Your task to perform on an android device: open chrome and create a bookmark for the current page Image 0: 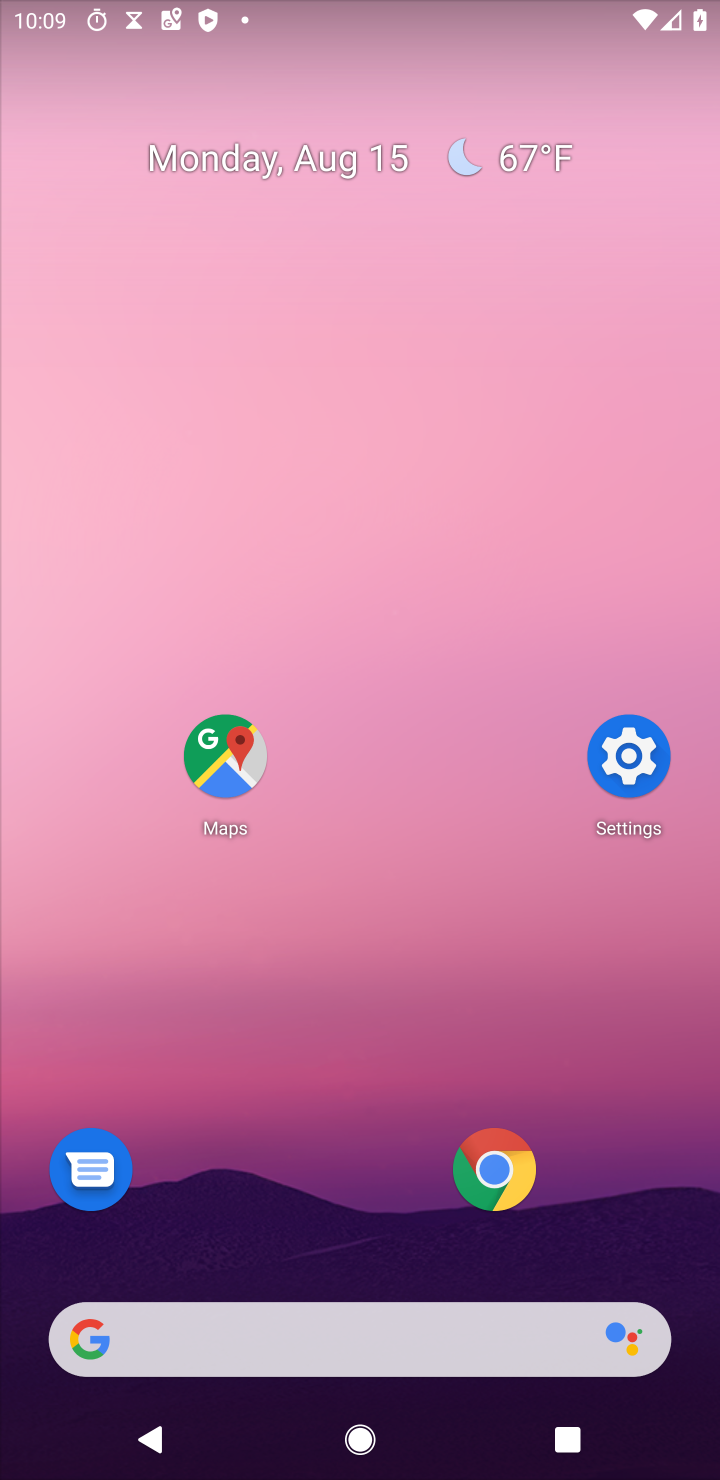
Step 0: click (488, 1170)
Your task to perform on an android device: open chrome and create a bookmark for the current page Image 1: 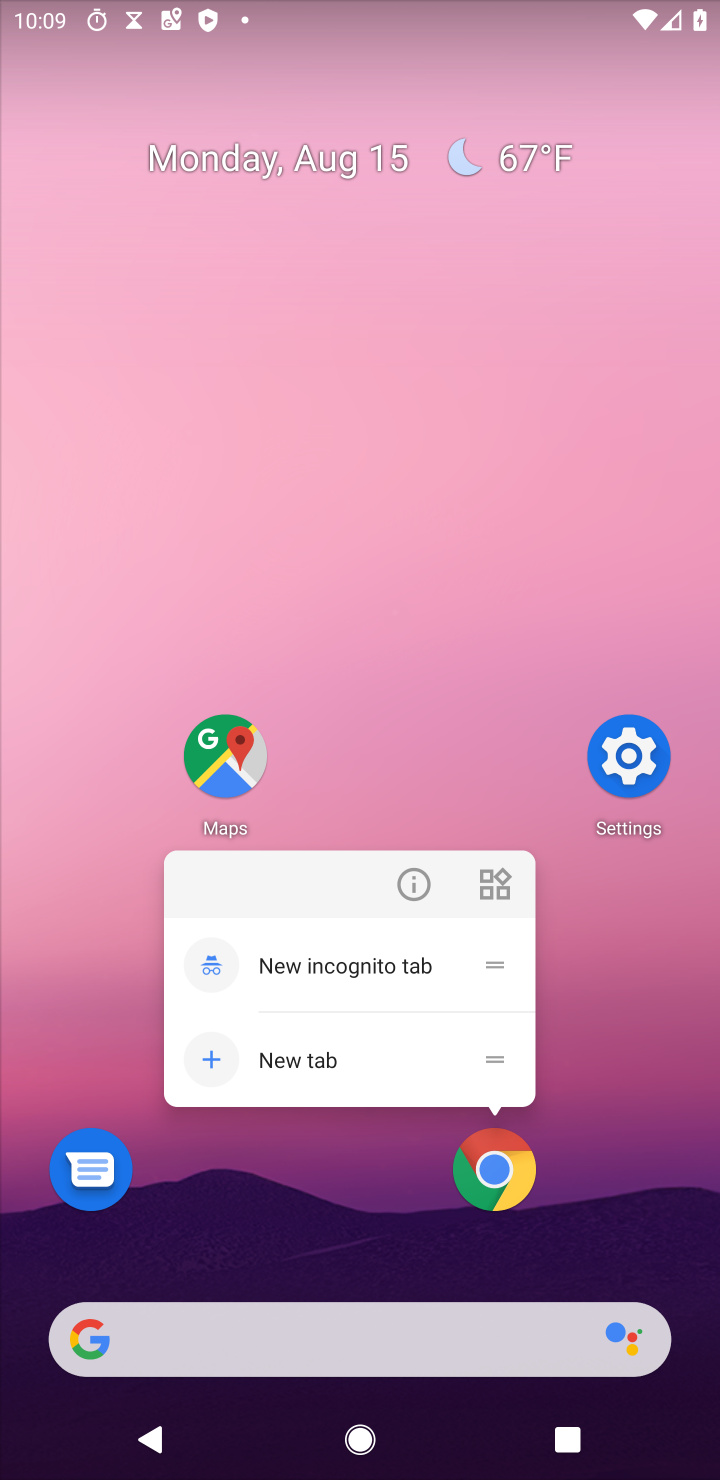
Step 1: click (488, 1170)
Your task to perform on an android device: open chrome and create a bookmark for the current page Image 2: 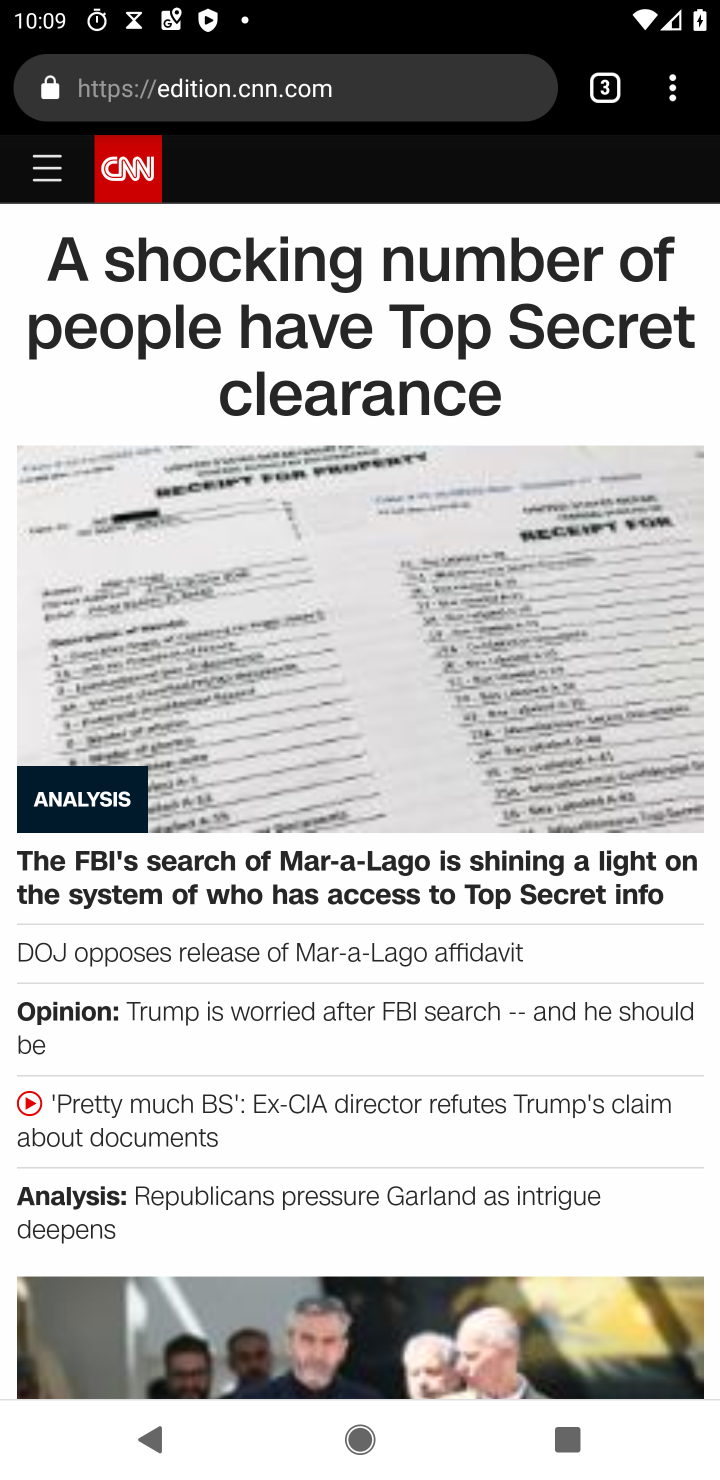
Step 2: click (675, 113)
Your task to perform on an android device: open chrome and create a bookmark for the current page Image 3: 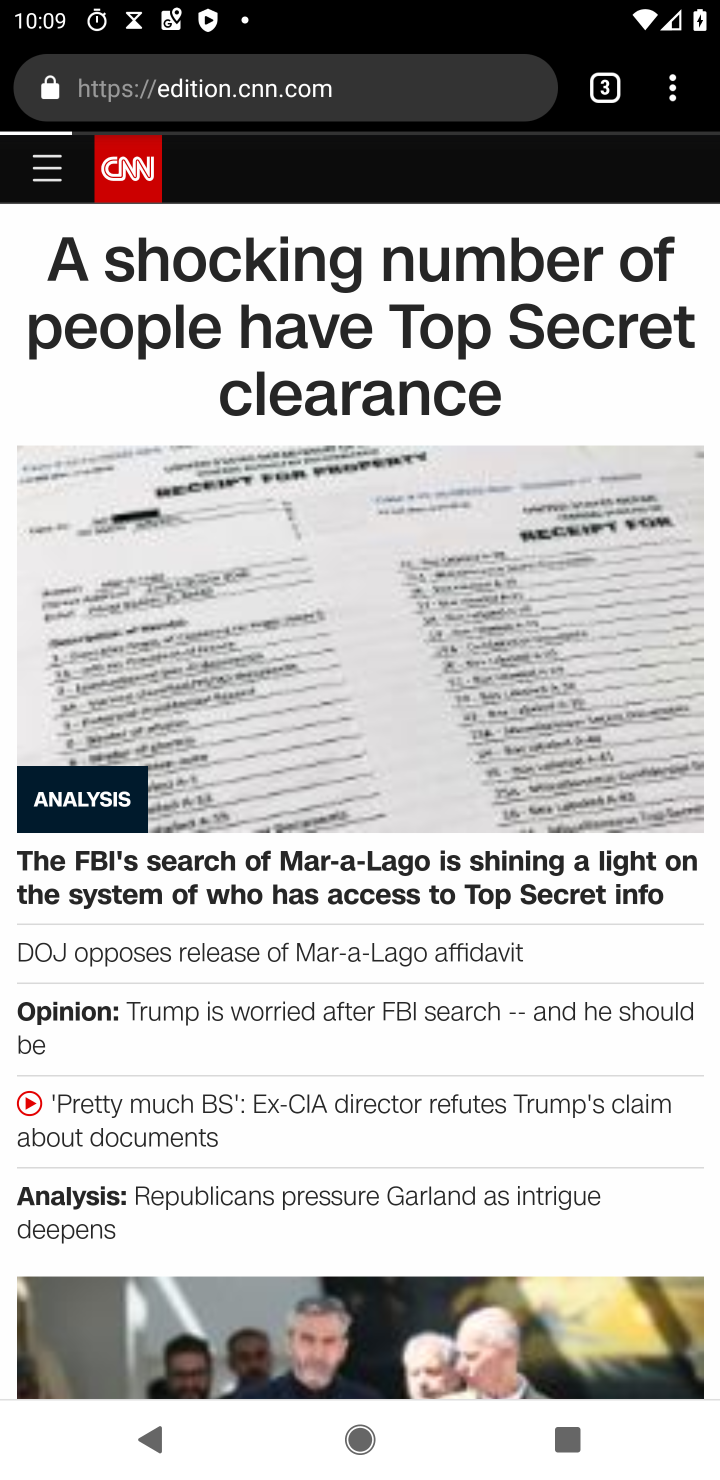
Step 3: click (671, 108)
Your task to perform on an android device: open chrome and create a bookmark for the current page Image 4: 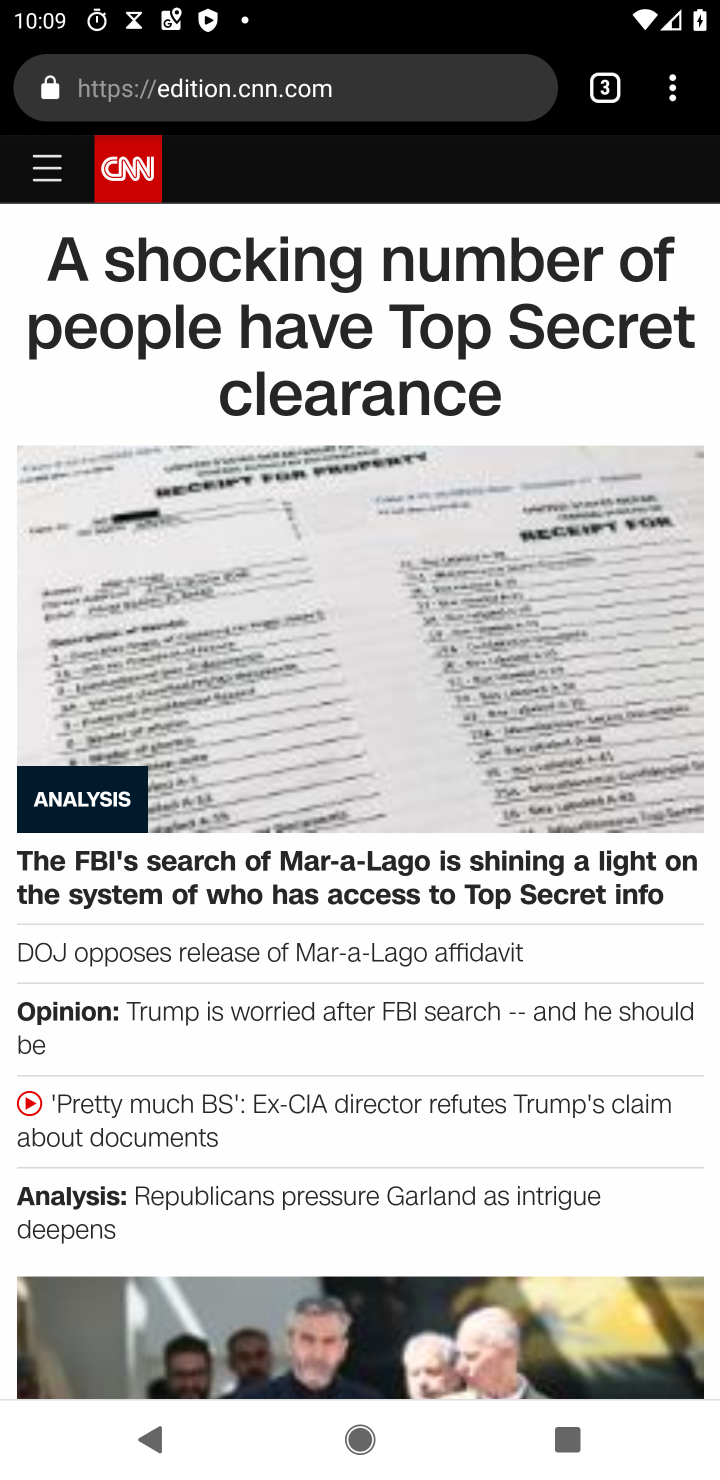
Step 4: click (653, 108)
Your task to perform on an android device: open chrome and create a bookmark for the current page Image 5: 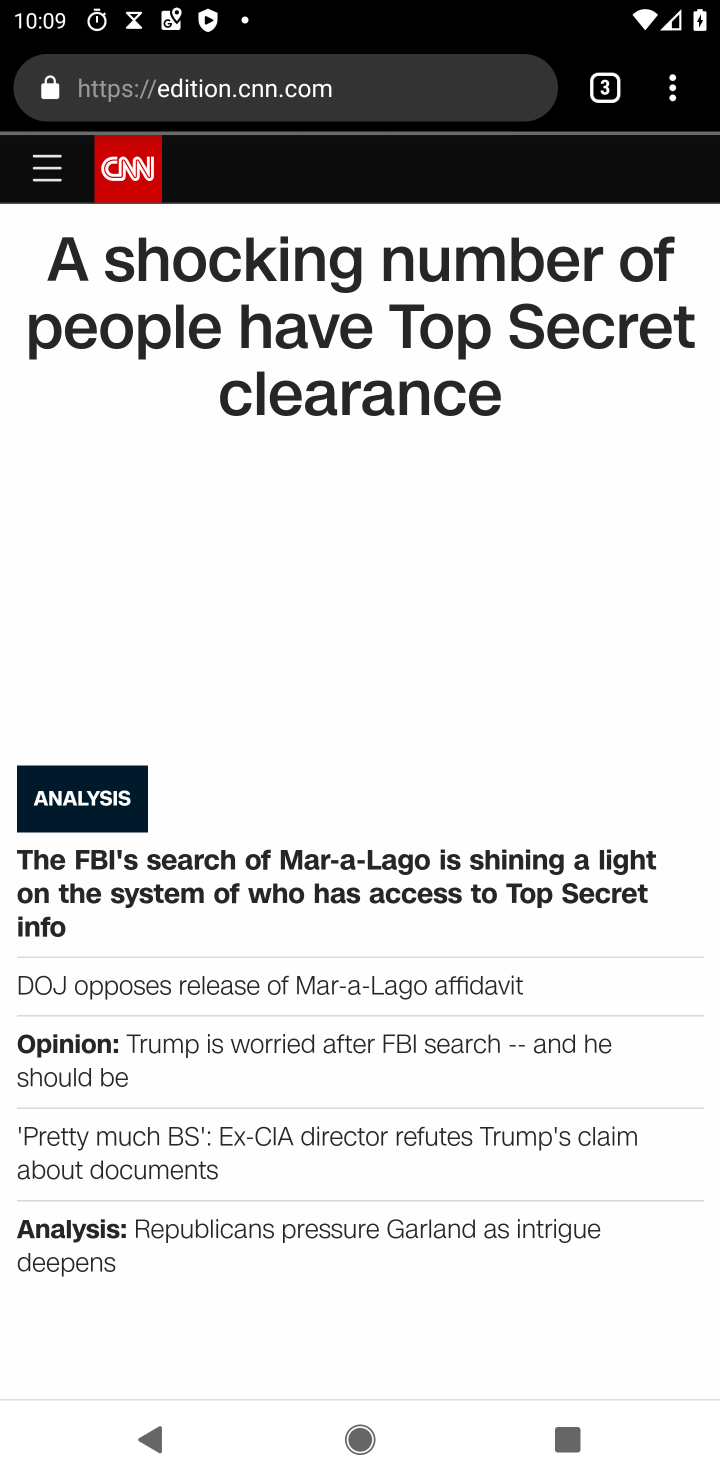
Step 5: click (692, 143)
Your task to perform on an android device: open chrome and create a bookmark for the current page Image 6: 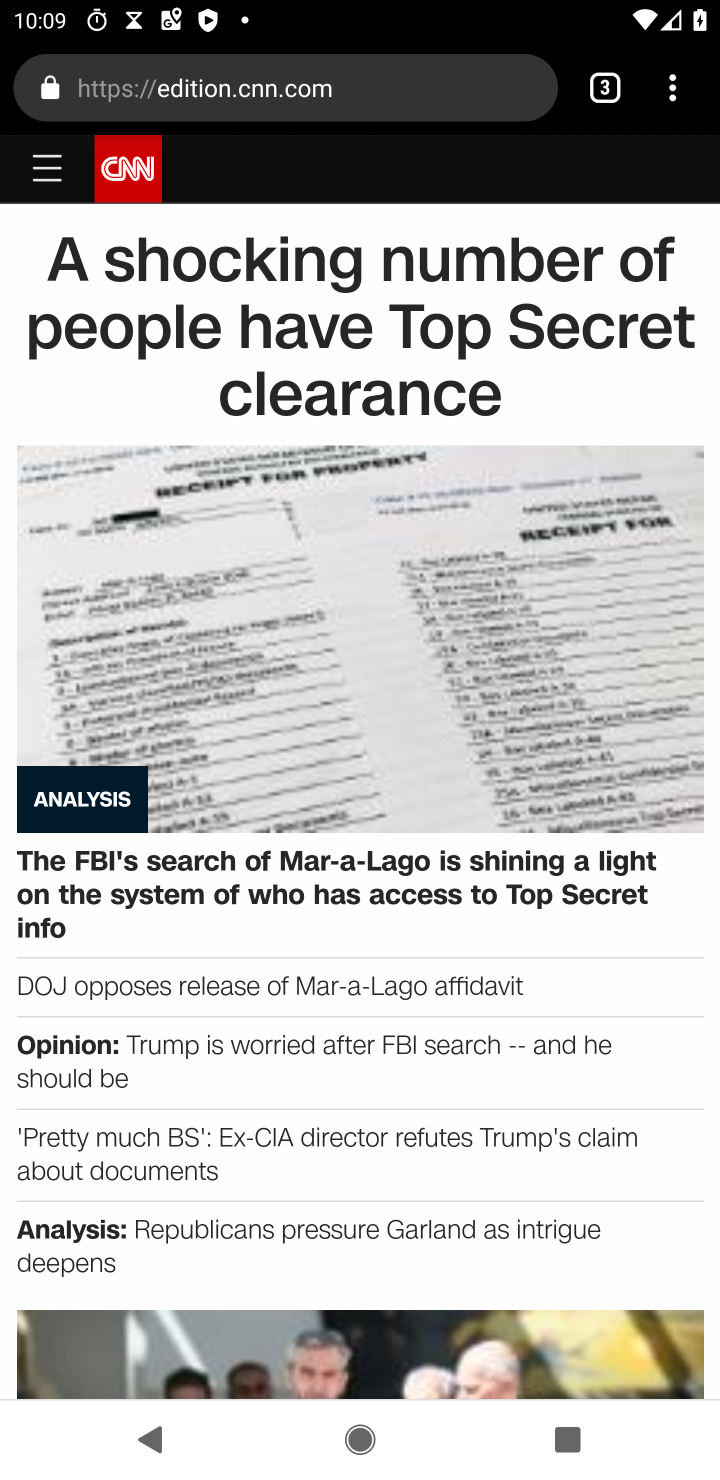
Step 6: click (672, 128)
Your task to perform on an android device: open chrome and create a bookmark for the current page Image 7: 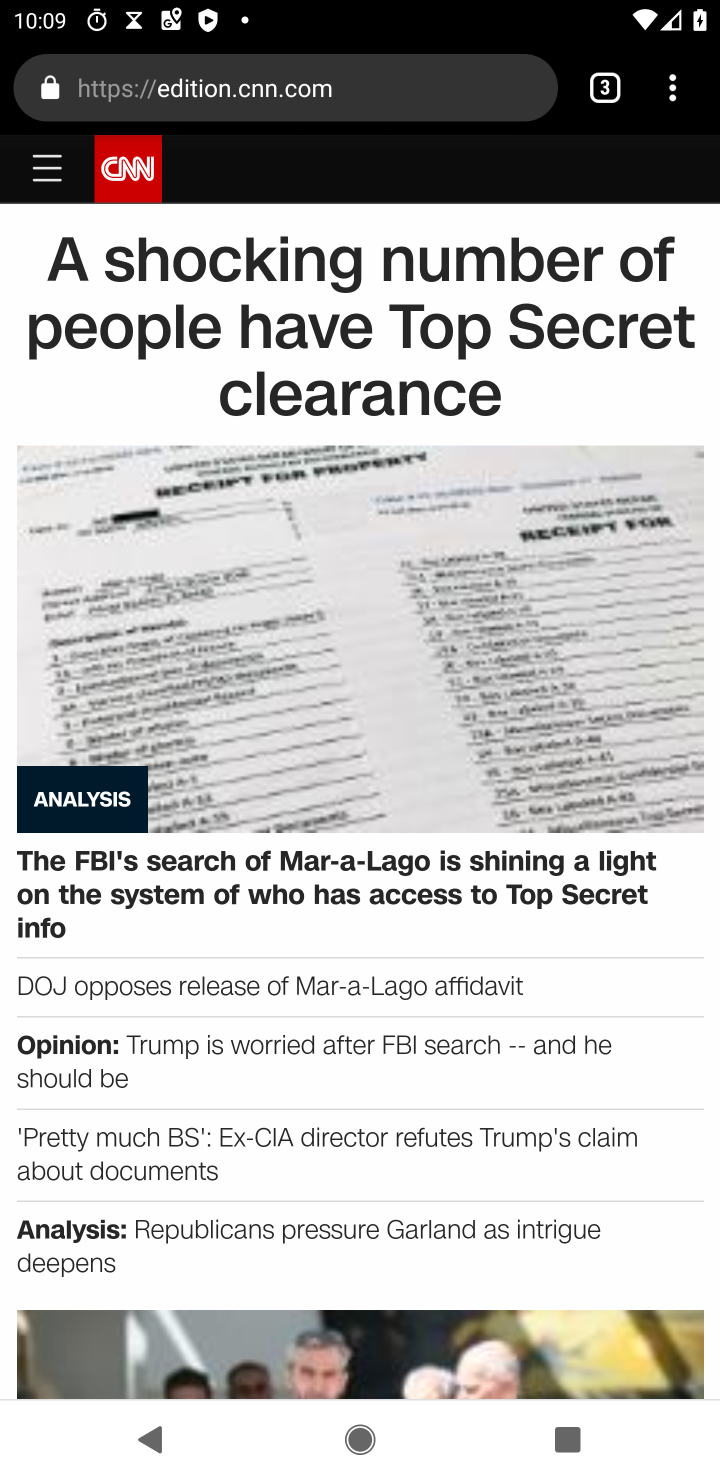
Step 7: click (676, 125)
Your task to perform on an android device: open chrome and create a bookmark for the current page Image 8: 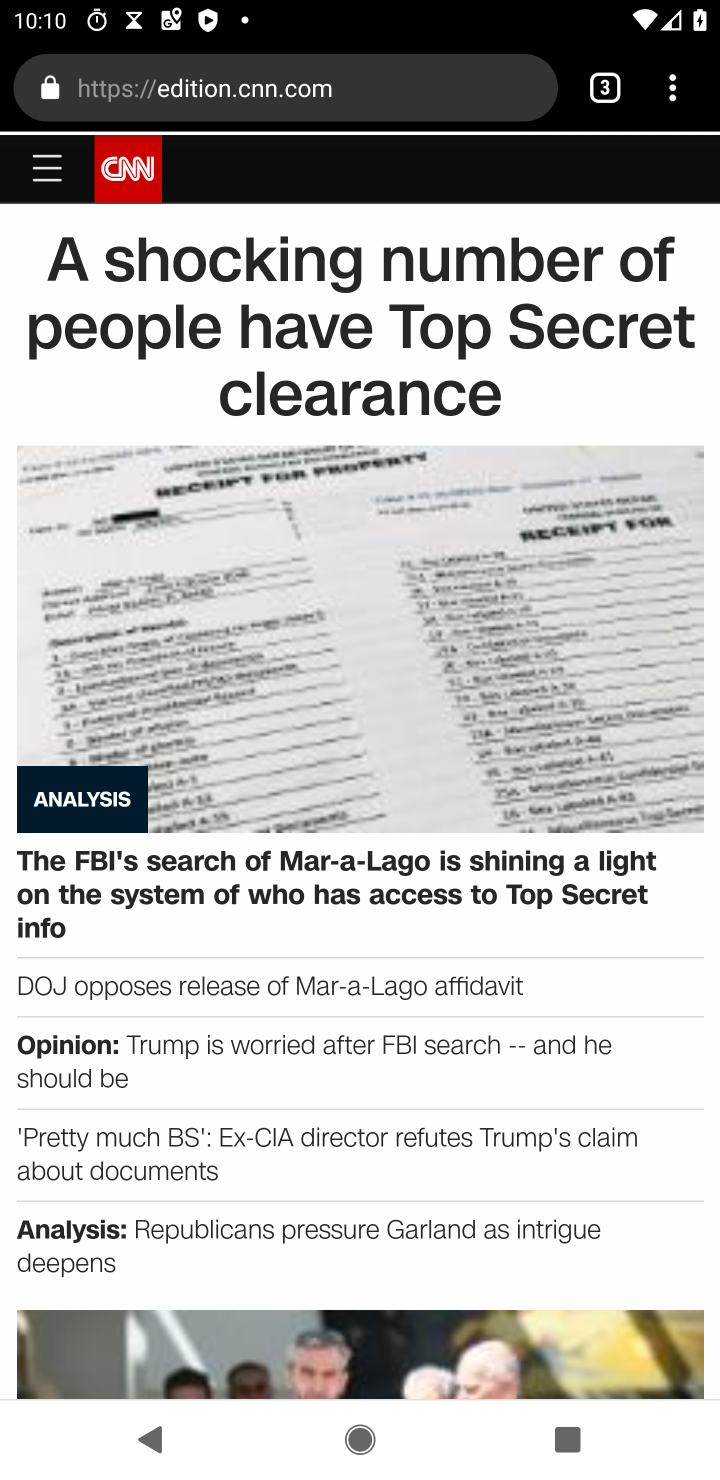
Step 8: click (666, 125)
Your task to perform on an android device: open chrome and create a bookmark for the current page Image 9: 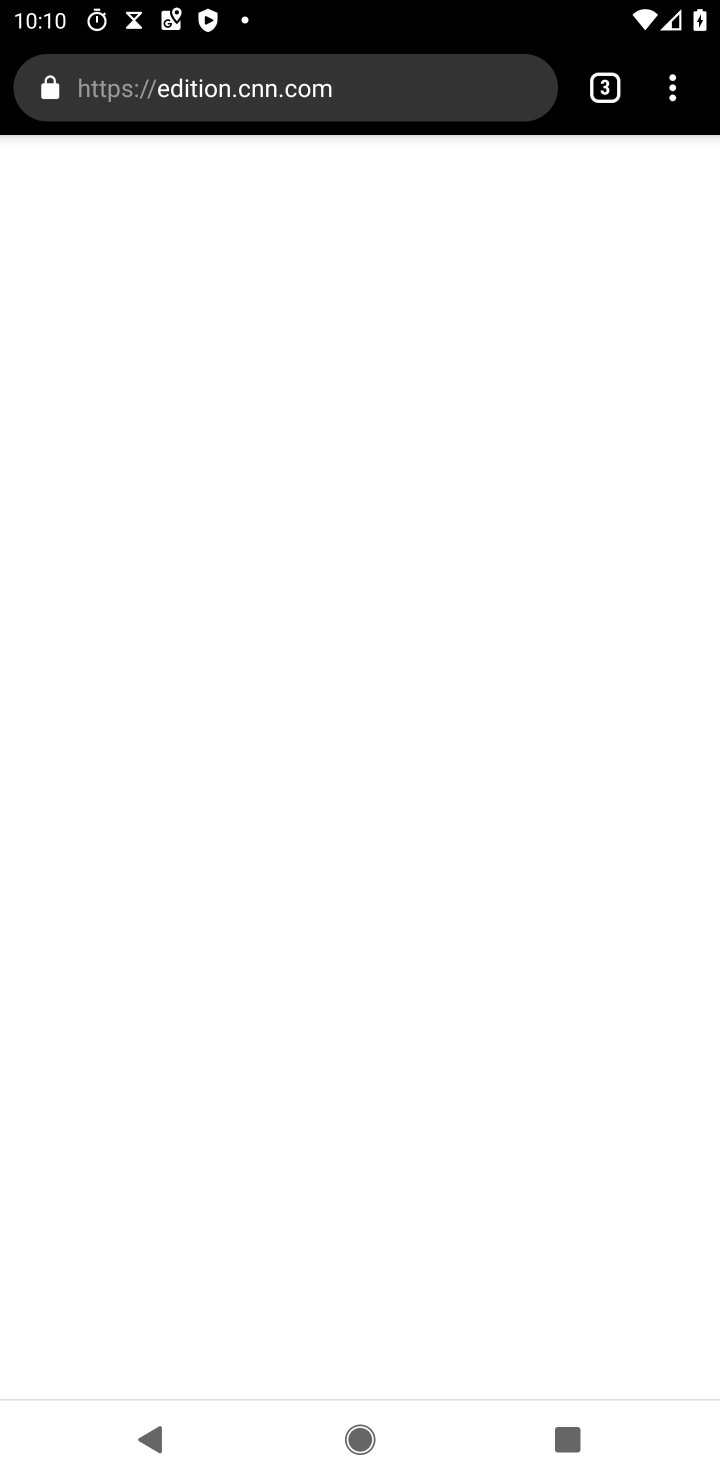
Step 9: click (655, 136)
Your task to perform on an android device: open chrome and create a bookmark for the current page Image 10: 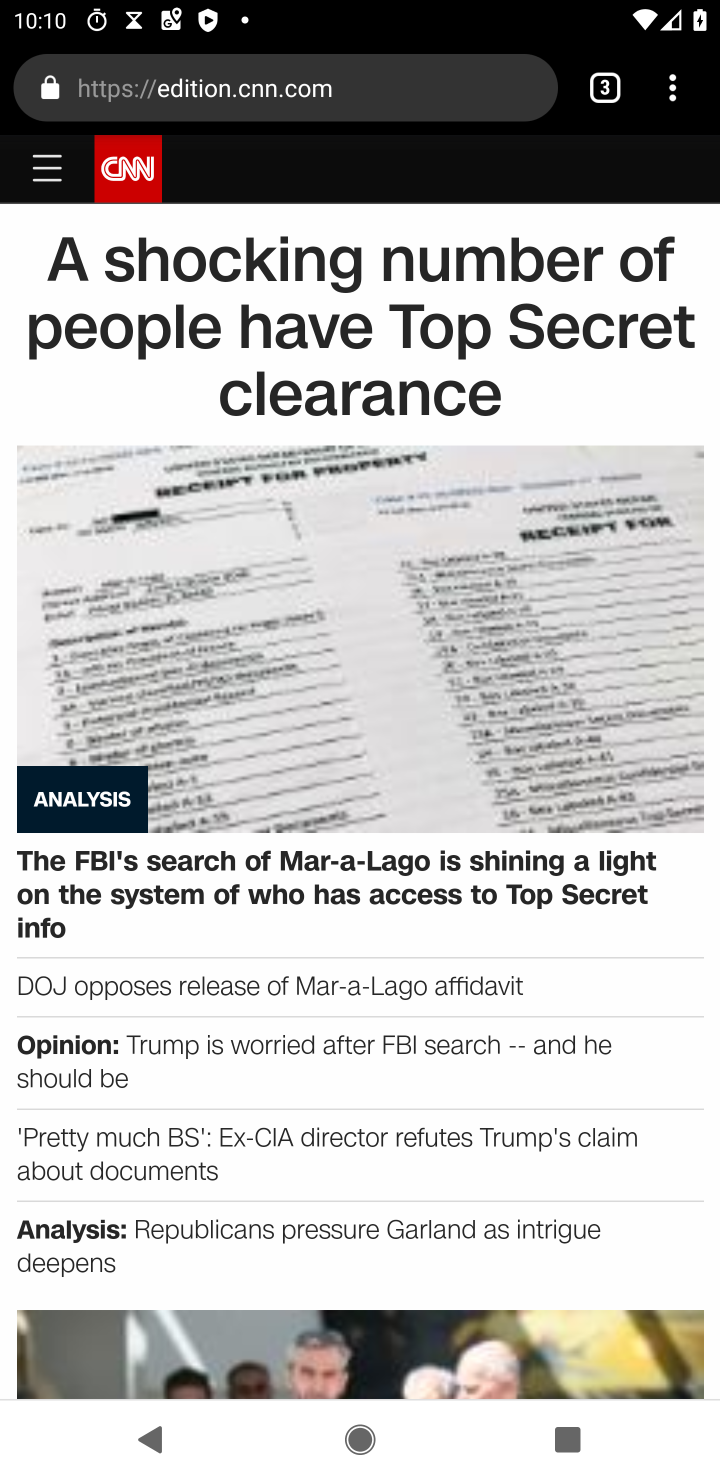
Step 10: click (672, 125)
Your task to perform on an android device: open chrome and create a bookmark for the current page Image 11: 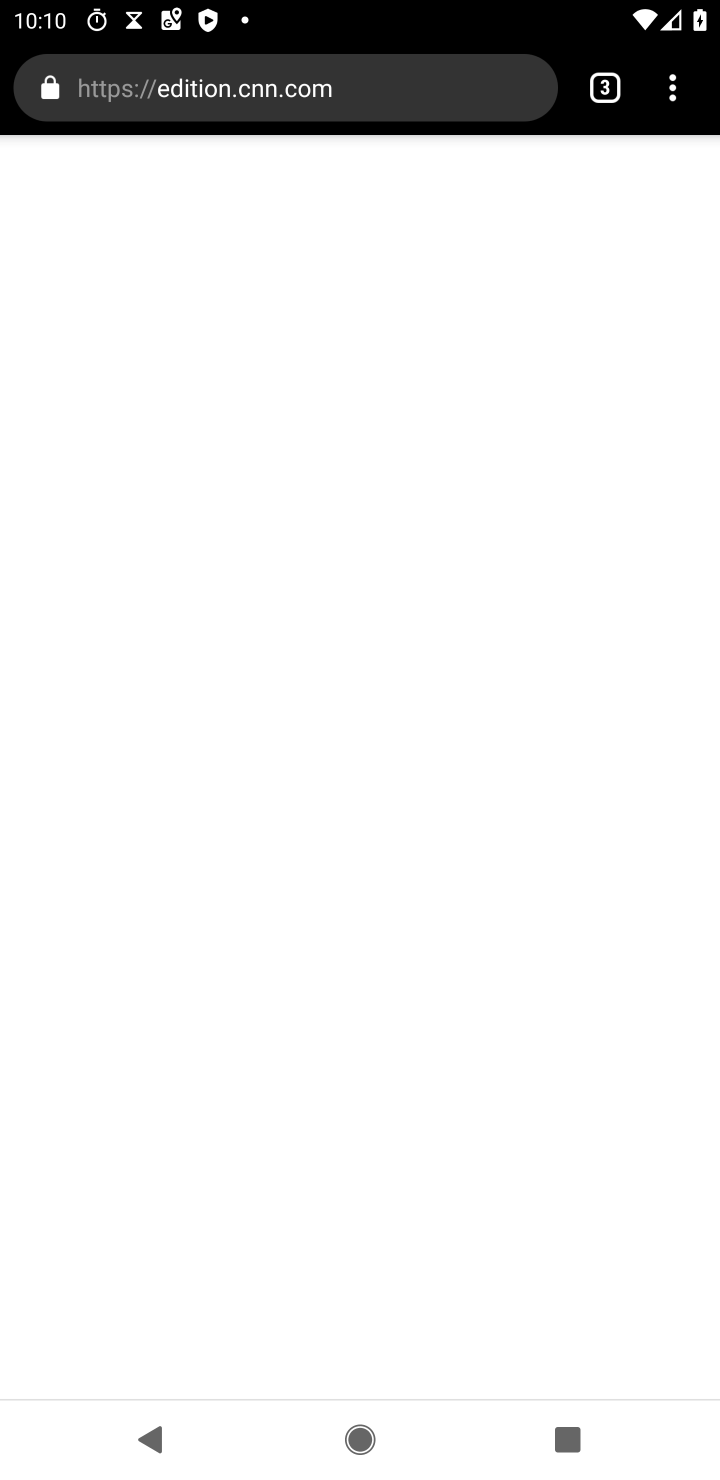
Step 11: click (672, 99)
Your task to perform on an android device: open chrome and create a bookmark for the current page Image 12: 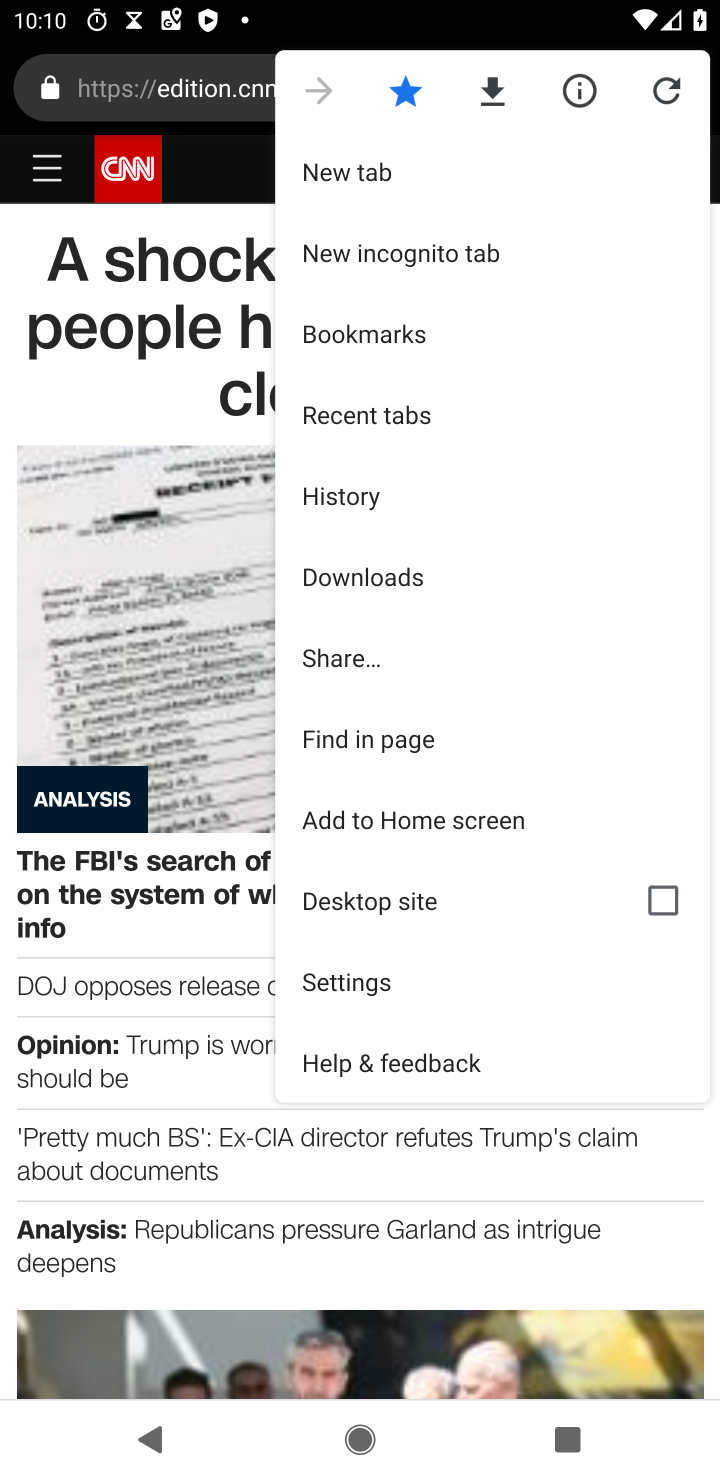
Step 12: task complete